Your task to perform on an android device: Open Google Image 0: 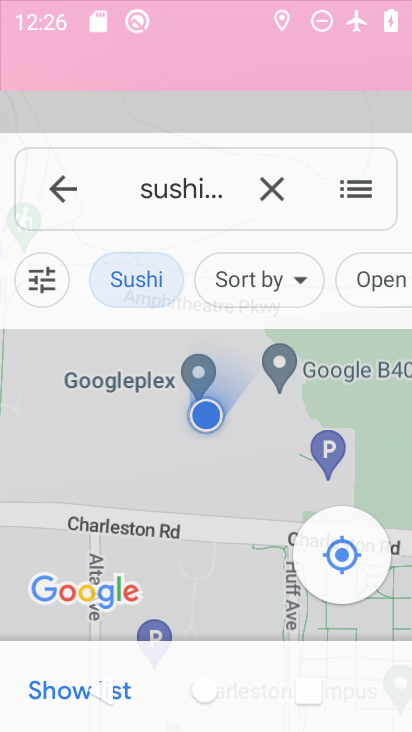
Step 0: click (267, 111)
Your task to perform on an android device: Open Google Image 1: 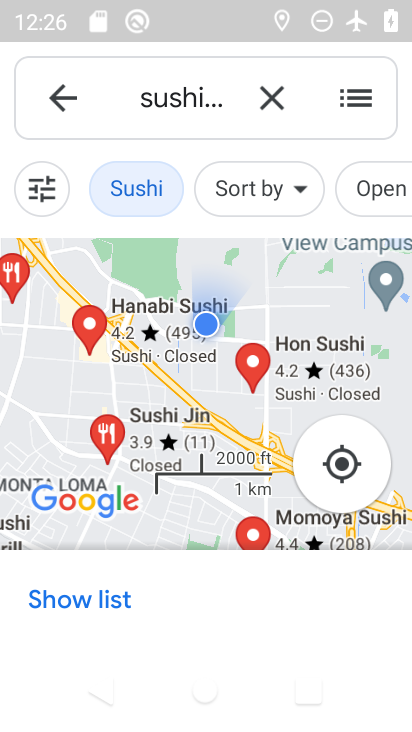
Step 1: click (67, 96)
Your task to perform on an android device: Open Google Image 2: 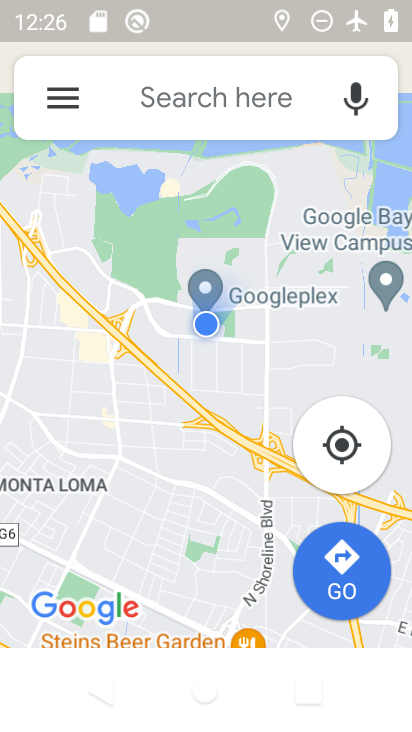
Step 2: press back button
Your task to perform on an android device: Open Google Image 3: 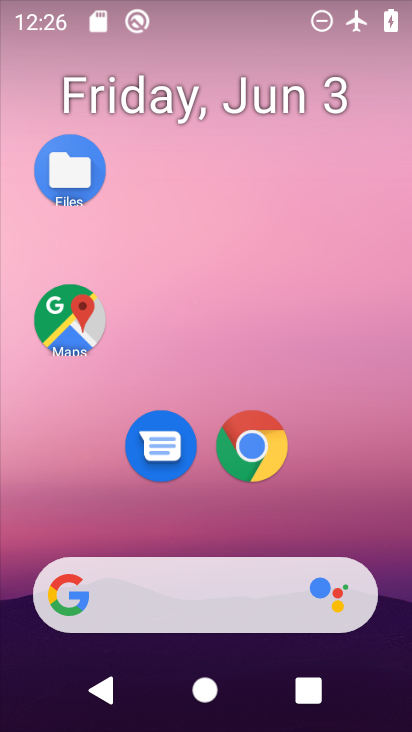
Step 3: drag from (244, 546) to (213, 156)
Your task to perform on an android device: Open Google Image 4: 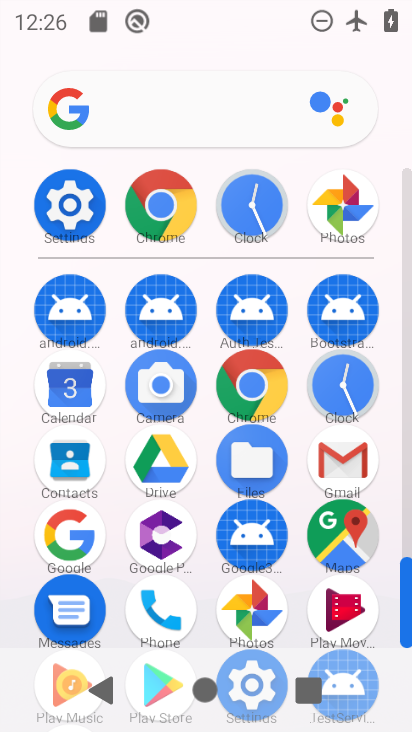
Step 4: click (79, 527)
Your task to perform on an android device: Open Google Image 5: 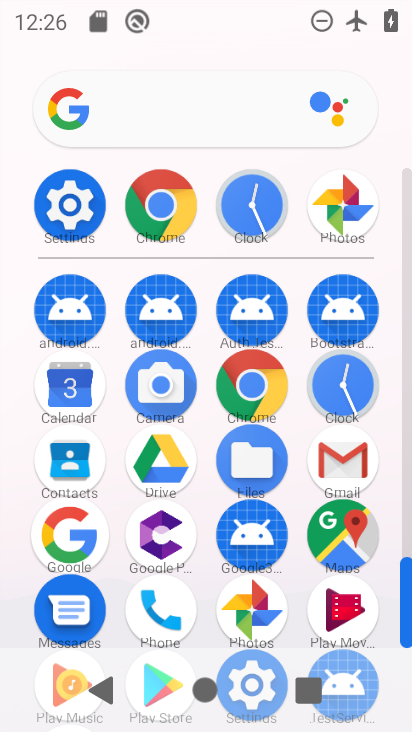
Step 5: click (79, 527)
Your task to perform on an android device: Open Google Image 6: 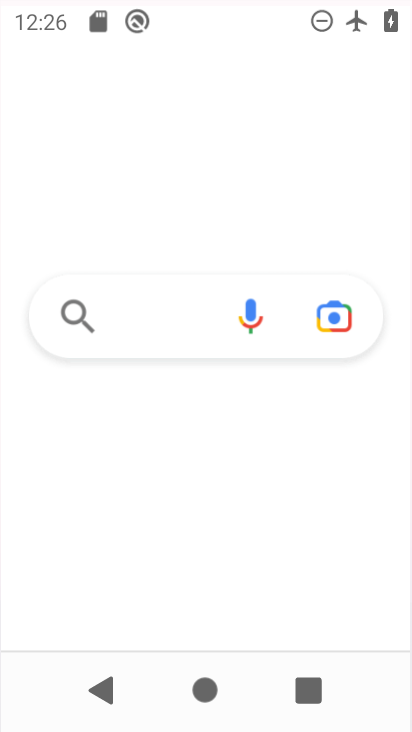
Step 6: click (79, 527)
Your task to perform on an android device: Open Google Image 7: 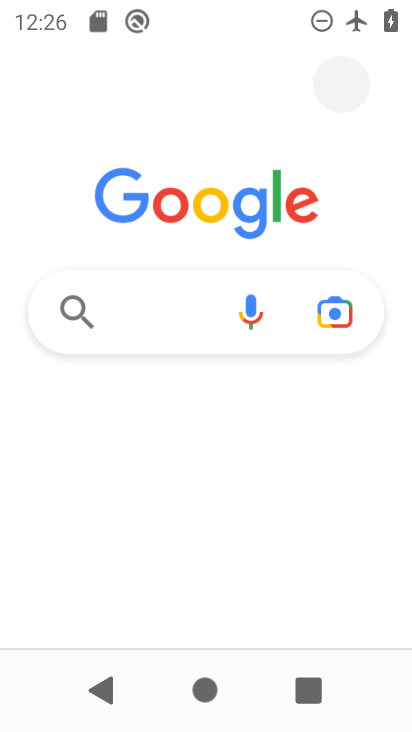
Step 7: click (79, 527)
Your task to perform on an android device: Open Google Image 8: 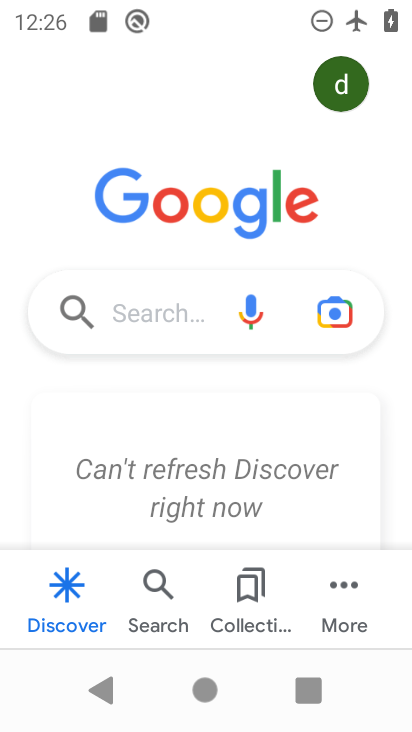
Step 8: task complete